Your task to perform on an android device: toggle priority inbox in the gmail app Image 0: 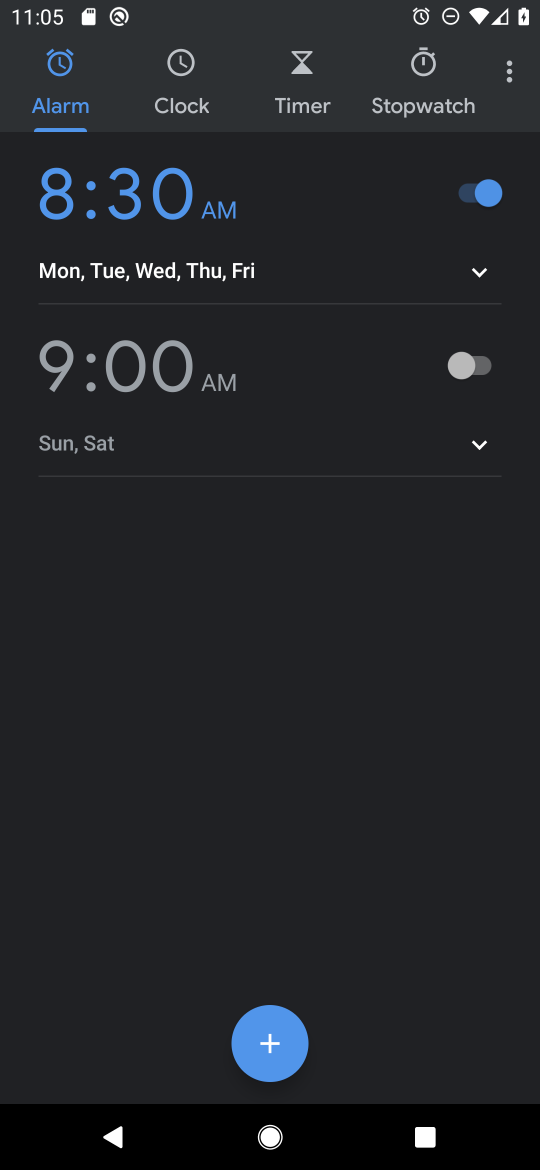
Step 0: press home button
Your task to perform on an android device: toggle priority inbox in the gmail app Image 1: 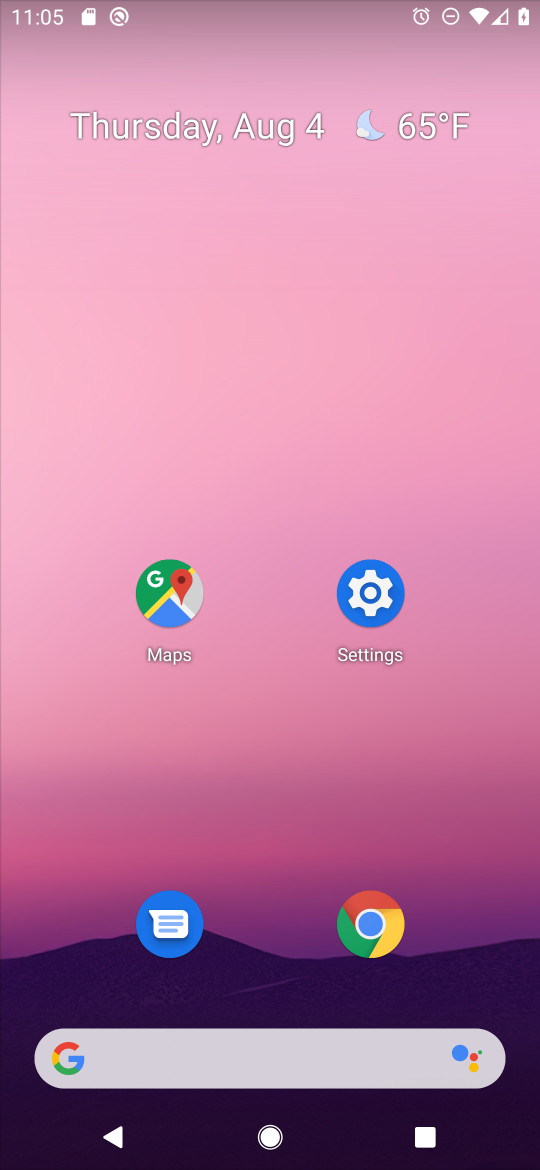
Step 1: drag from (255, 1057) to (390, 153)
Your task to perform on an android device: toggle priority inbox in the gmail app Image 2: 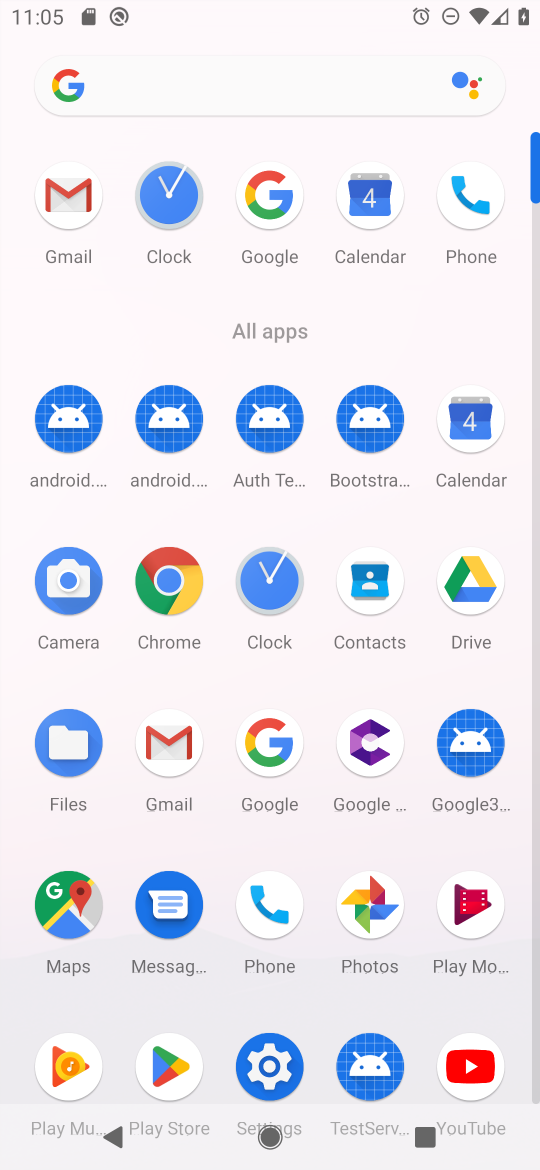
Step 2: click (80, 201)
Your task to perform on an android device: toggle priority inbox in the gmail app Image 3: 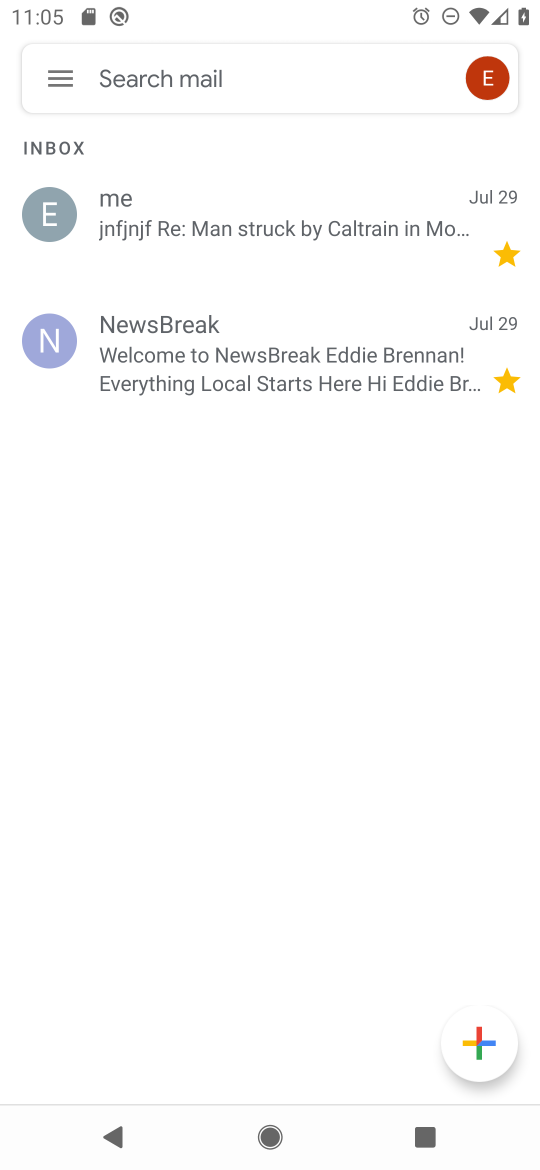
Step 3: click (53, 74)
Your task to perform on an android device: toggle priority inbox in the gmail app Image 4: 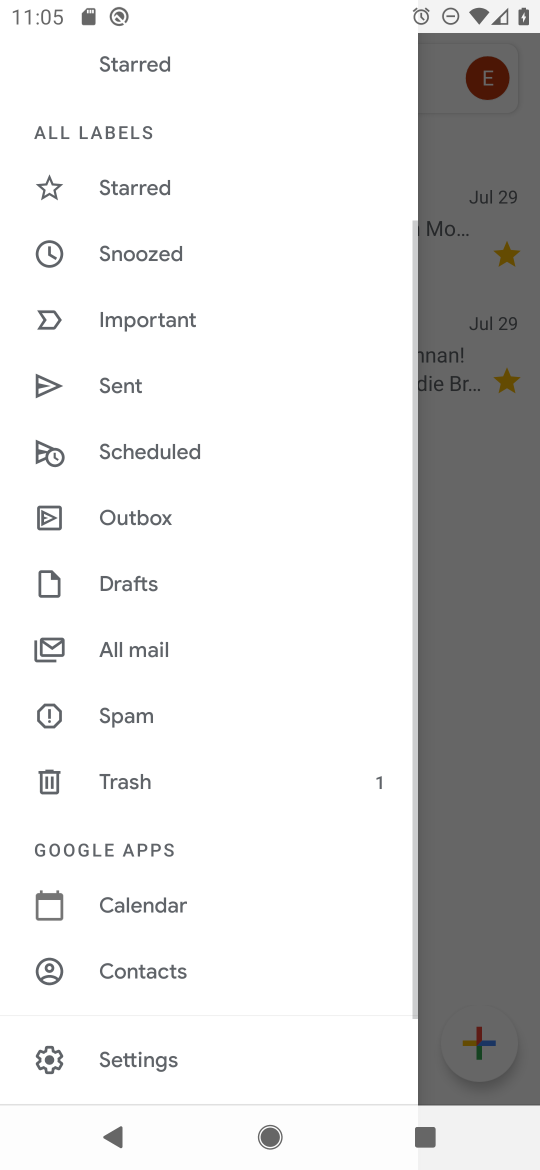
Step 4: drag from (234, 952) to (340, 177)
Your task to perform on an android device: toggle priority inbox in the gmail app Image 5: 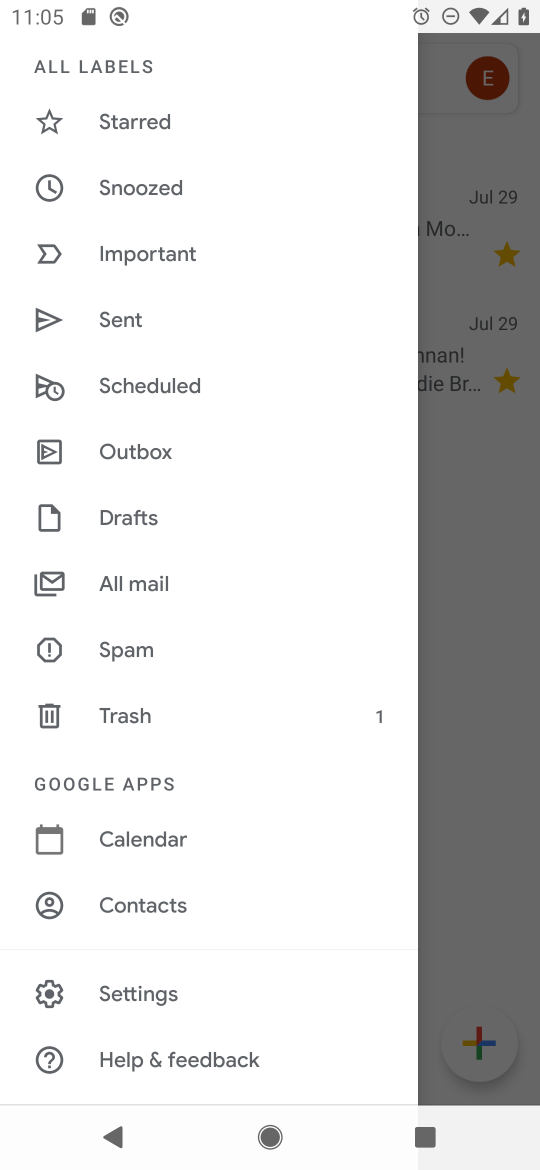
Step 5: click (145, 999)
Your task to perform on an android device: toggle priority inbox in the gmail app Image 6: 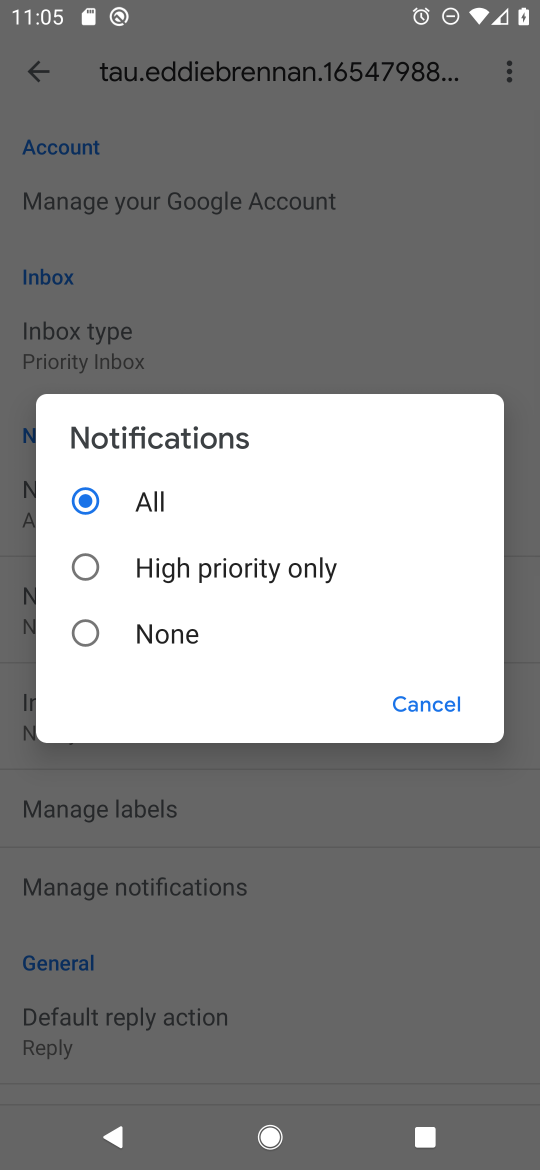
Step 6: click (421, 715)
Your task to perform on an android device: toggle priority inbox in the gmail app Image 7: 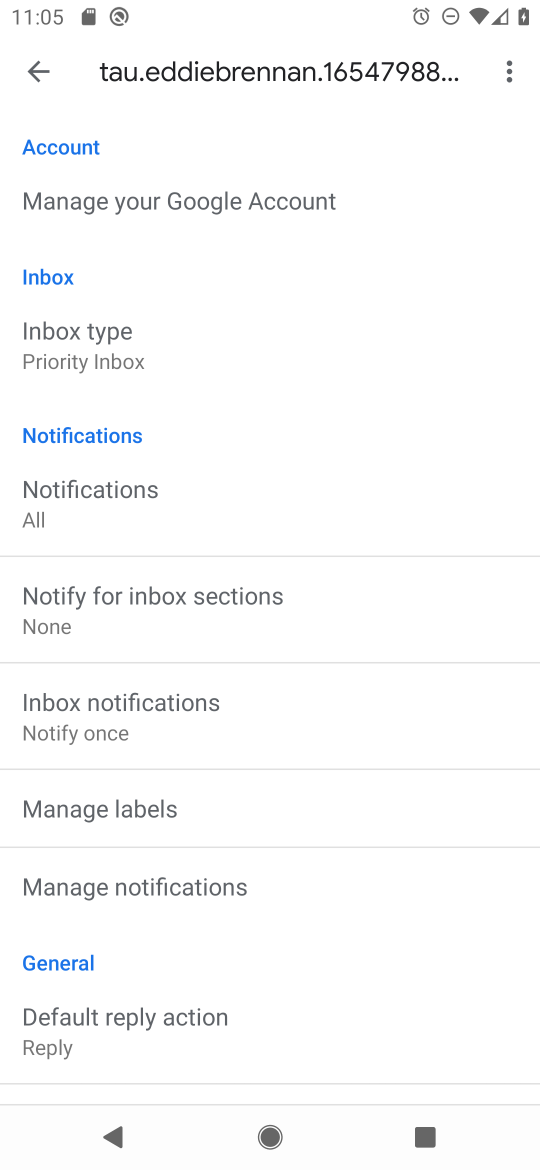
Step 7: click (100, 343)
Your task to perform on an android device: toggle priority inbox in the gmail app Image 8: 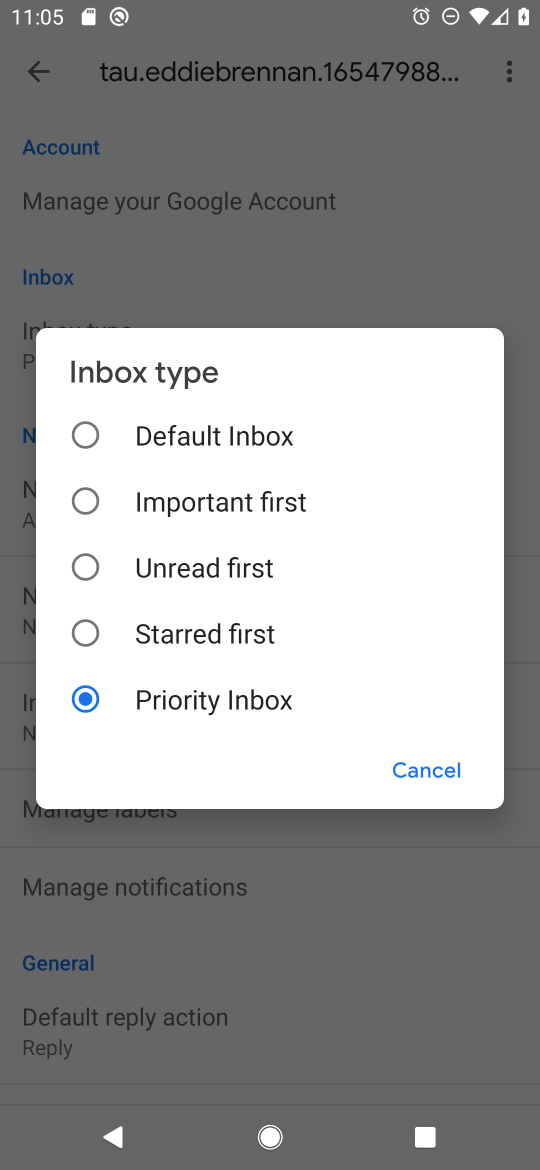
Step 8: click (92, 425)
Your task to perform on an android device: toggle priority inbox in the gmail app Image 9: 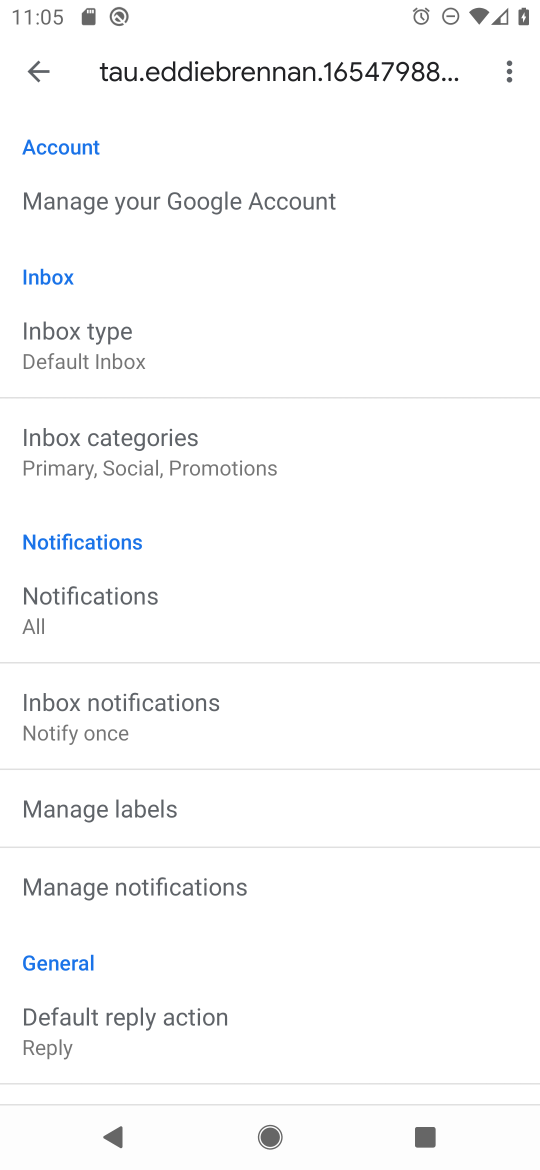
Step 9: task complete